Your task to perform on an android device: read, delete, or share a saved page in the chrome app Image 0: 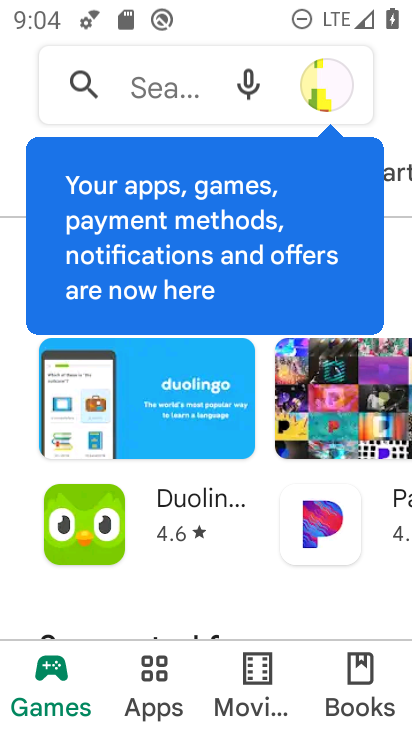
Step 0: press home button
Your task to perform on an android device: read, delete, or share a saved page in the chrome app Image 1: 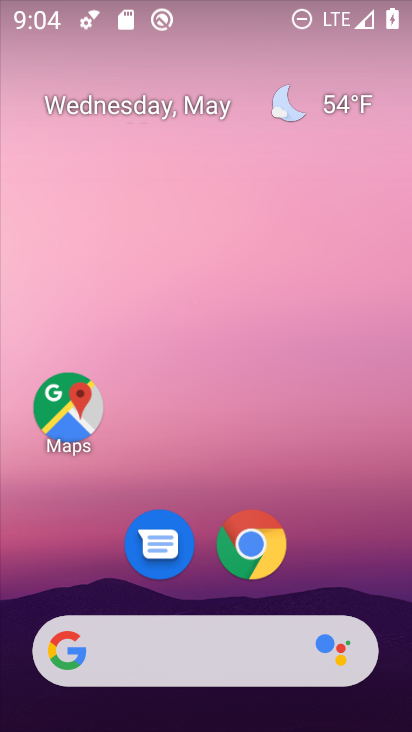
Step 1: click (232, 548)
Your task to perform on an android device: read, delete, or share a saved page in the chrome app Image 2: 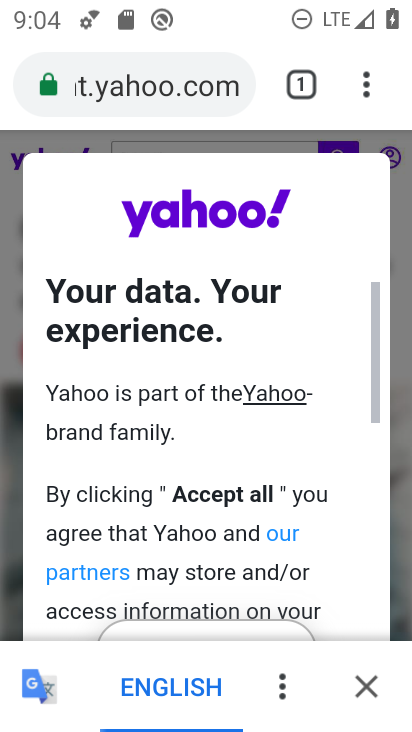
Step 2: click (385, 84)
Your task to perform on an android device: read, delete, or share a saved page in the chrome app Image 3: 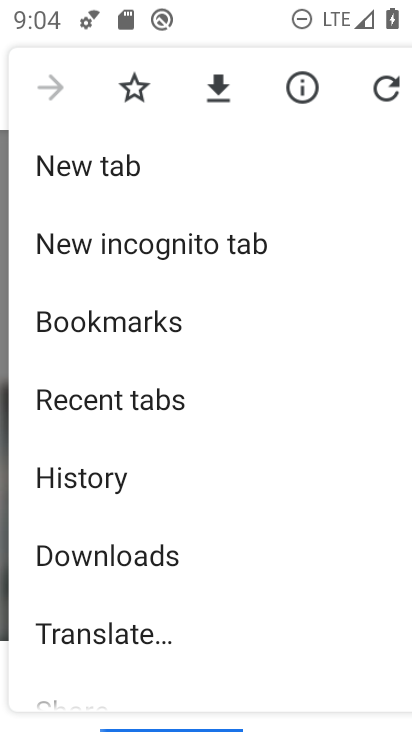
Step 3: click (91, 572)
Your task to perform on an android device: read, delete, or share a saved page in the chrome app Image 4: 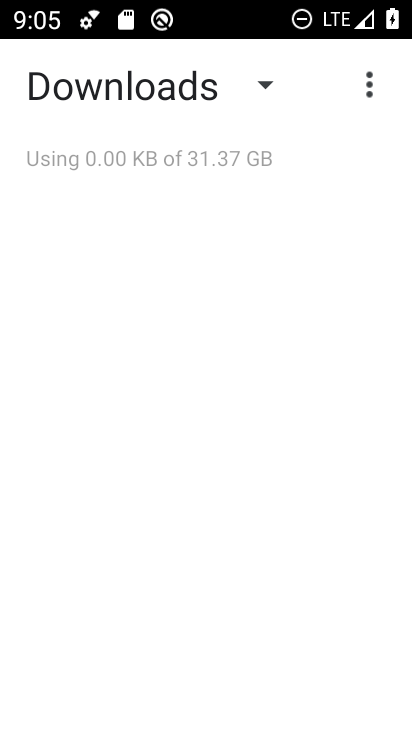
Step 4: click (73, 579)
Your task to perform on an android device: read, delete, or share a saved page in the chrome app Image 5: 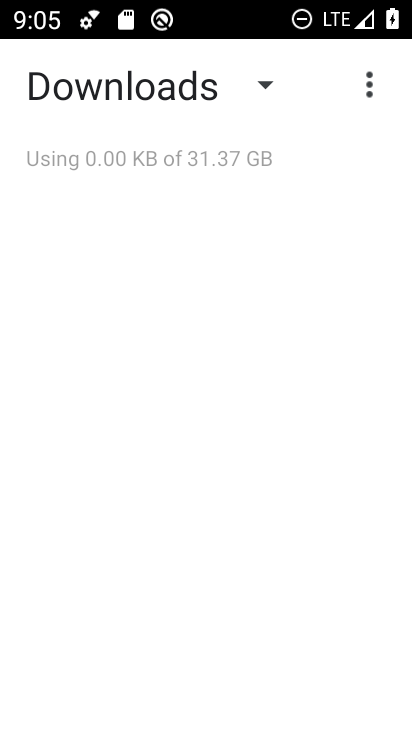
Step 5: task complete